Your task to perform on an android device: delete a single message in the gmail app Image 0: 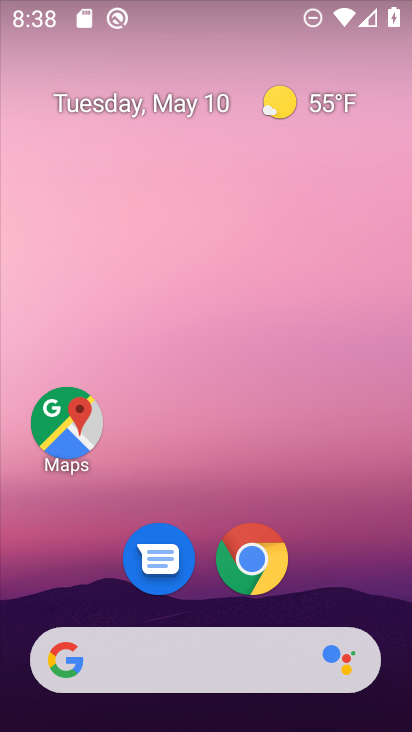
Step 0: drag from (219, 722) to (225, 197)
Your task to perform on an android device: delete a single message in the gmail app Image 1: 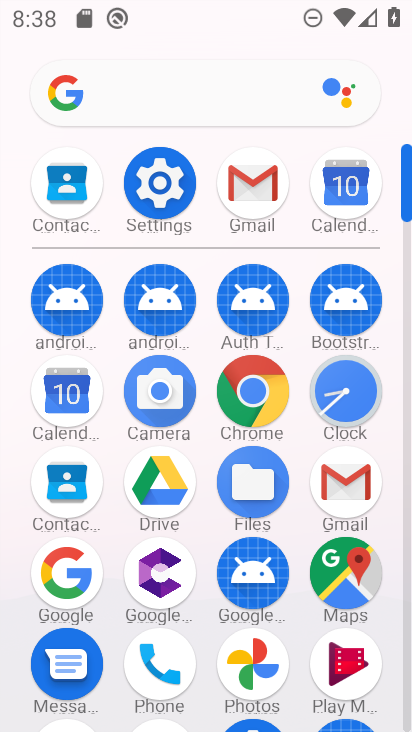
Step 1: click (344, 484)
Your task to perform on an android device: delete a single message in the gmail app Image 2: 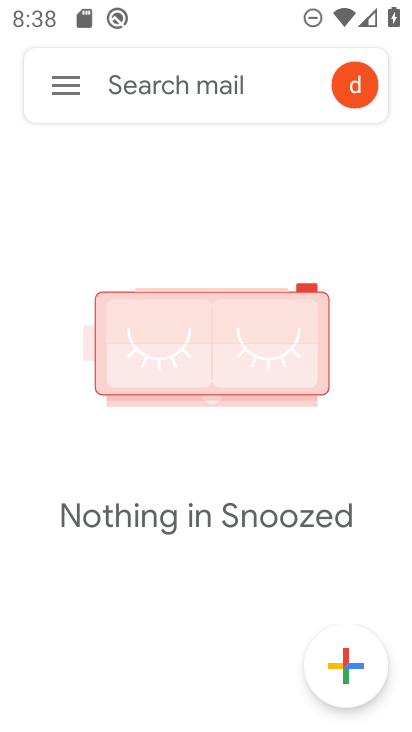
Step 2: click (73, 89)
Your task to perform on an android device: delete a single message in the gmail app Image 3: 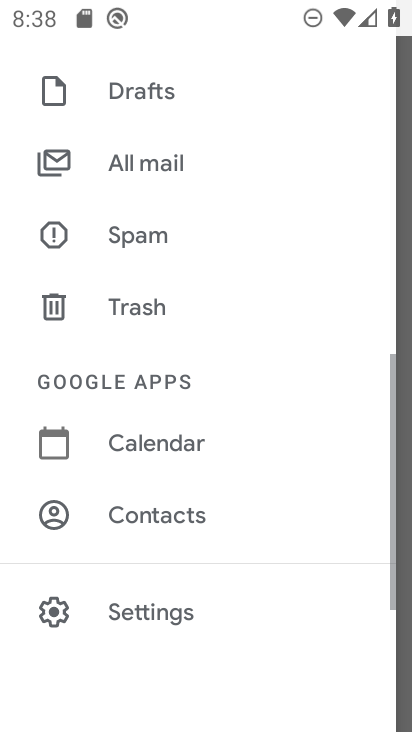
Step 3: drag from (166, 97) to (112, 505)
Your task to perform on an android device: delete a single message in the gmail app Image 4: 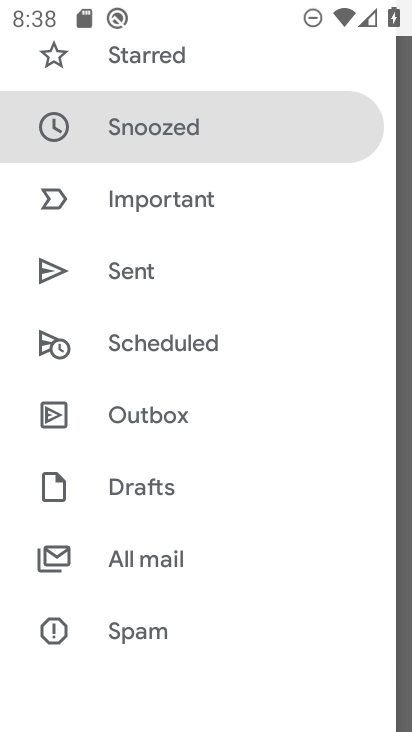
Step 4: drag from (232, 88) to (214, 529)
Your task to perform on an android device: delete a single message in the gmail app Image 5: 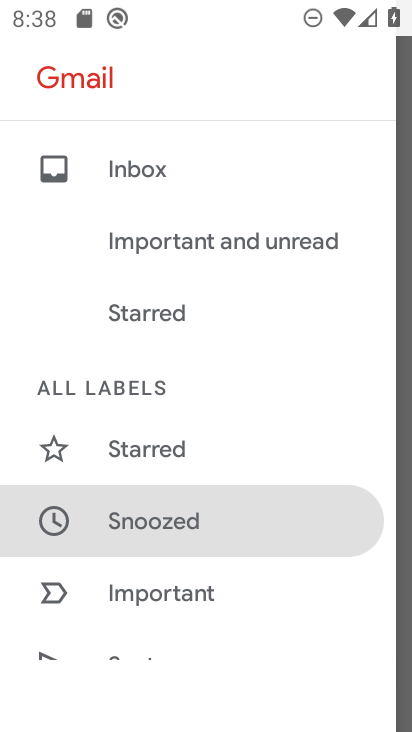
Step 5: click (129, 166)
Your task to perform on an android device: delete a single message in the gmail app Image 6: 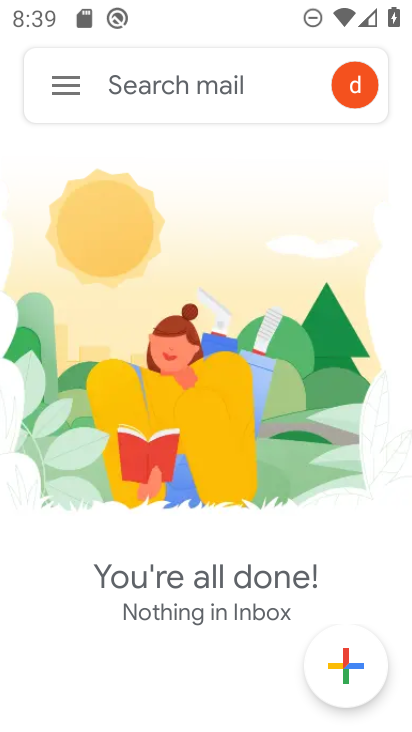
Step 6: task complete